Your task to perform on an android device: Open the phone app and click the voicemail tab. Image 0: 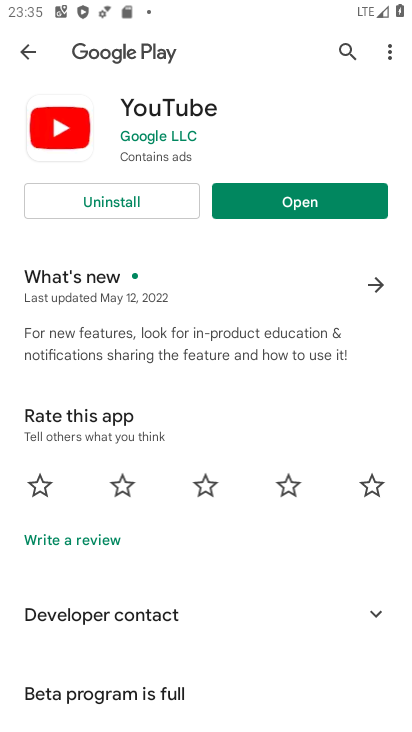
Step 0: press home button
Your task to perform on an android device: Open the phone app and click the voicemail tab. Image 1: 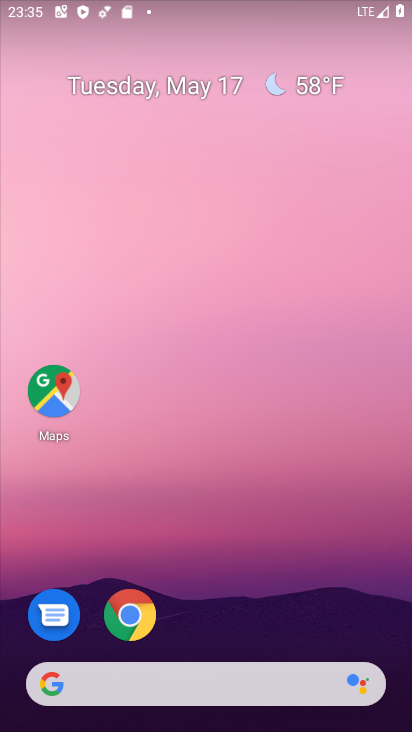
Step 1: drag from (241, 620) to (198, 201)
Your task to perform on an android device: Open the phone app and click the voicemail tab. Image 2: 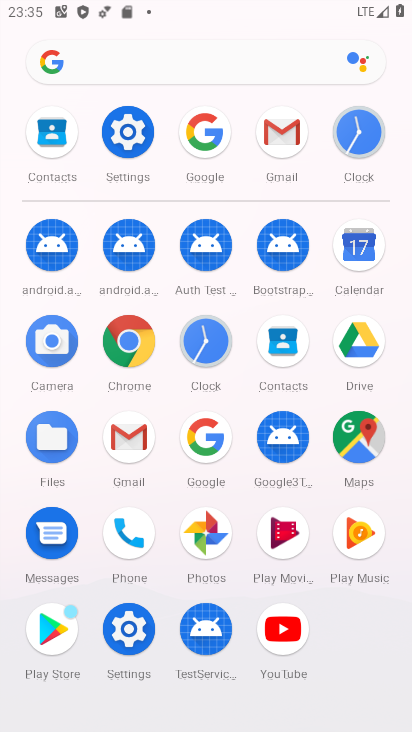
Step 2: click (124, 524)
Your task to perform on an android device: Open the phone app and click the voicemail tab. Image 3: 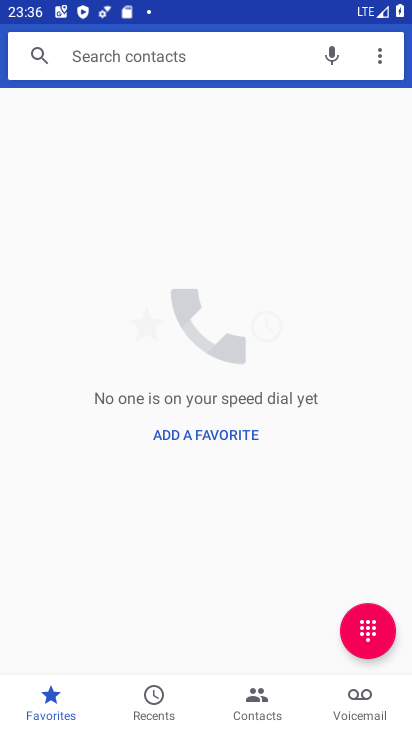
Step 3: click (343, 708)
Your task to perform on an android device: Open the phone app and click the voicemail tab. Image 4: 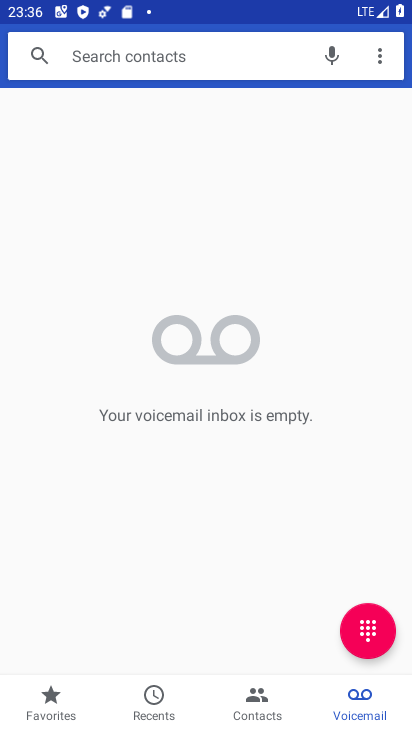
Step 4: click (356, 700)
Your task to perform on an android device: Open the phone app and click the voicemail tab. Image 5: 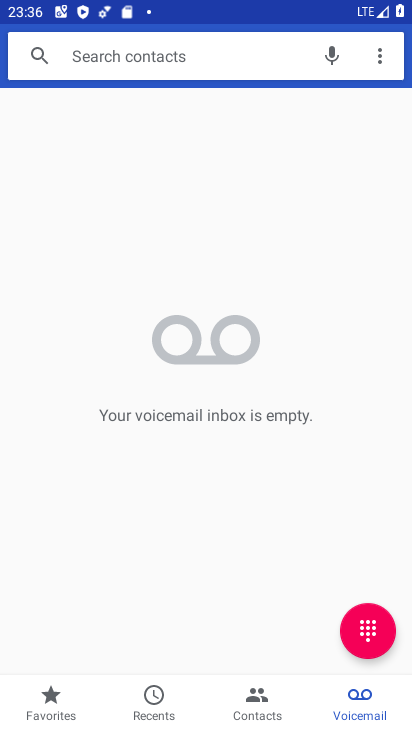
Step 5: task complete